Your task to perform on an android device: delete location history Image 0: 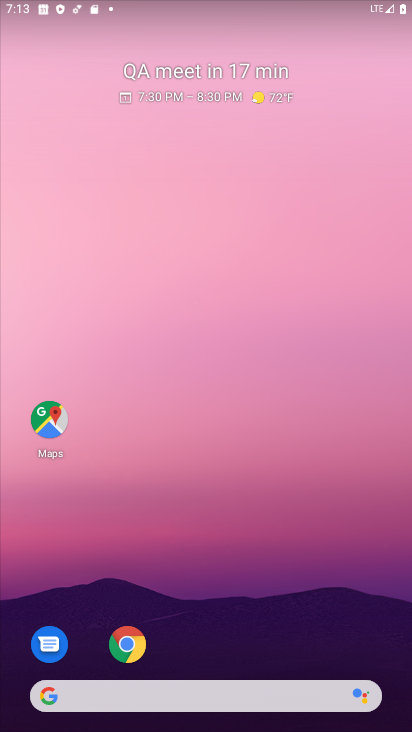
Step 0: drag from (243, 710) to (232, 166)
Your task to perform on an android device: delete location history Image 1: 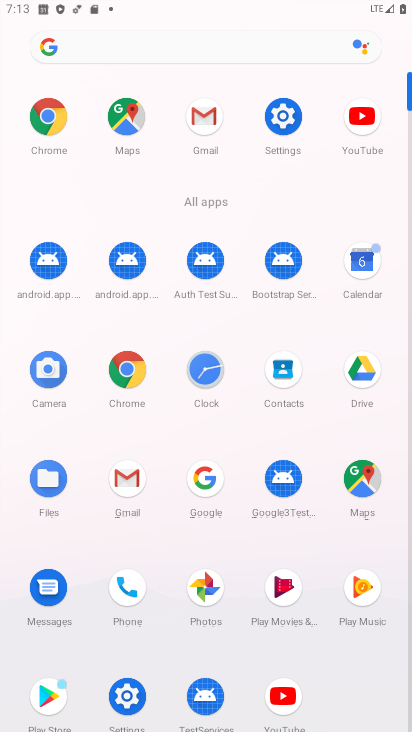
Step 1: click (277, 112)
Your task to perform on an android device: delete location history Image 2: 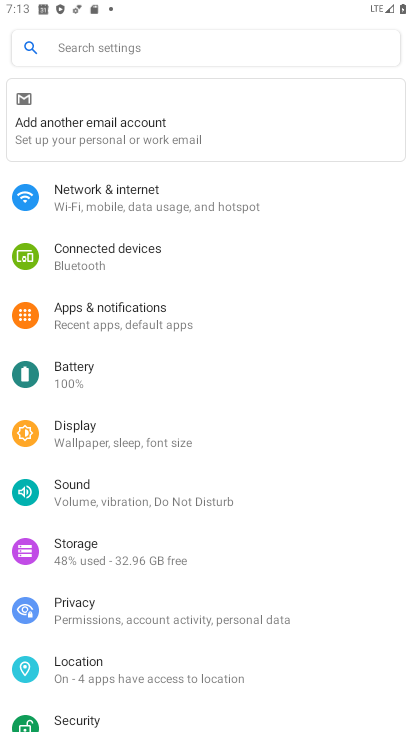
Step 2: click (125, 53)
Your task to perform on an android device: delete location history Image 3: 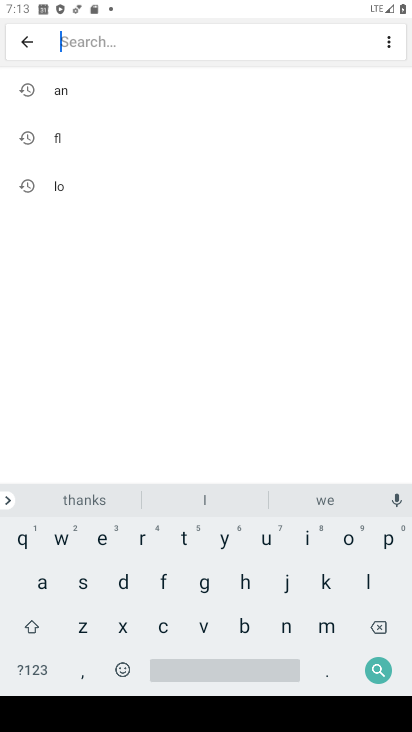
Step 3: click (379, 578)
Your task to perform on an android device: delete location history Image 4: 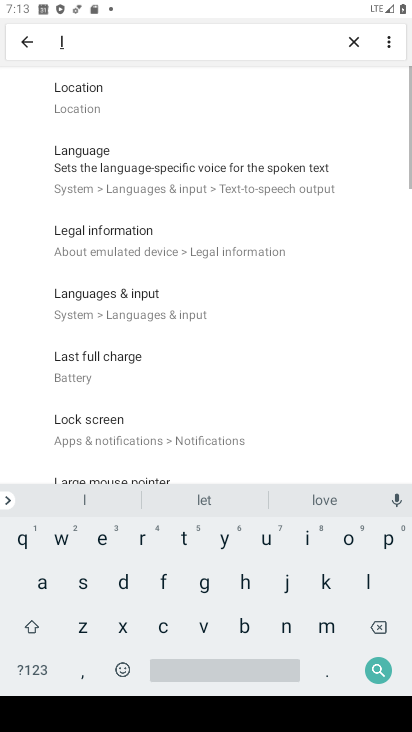
Step 4: click (347, 540)
Your task to perform on an android device: delete location history Image 5: 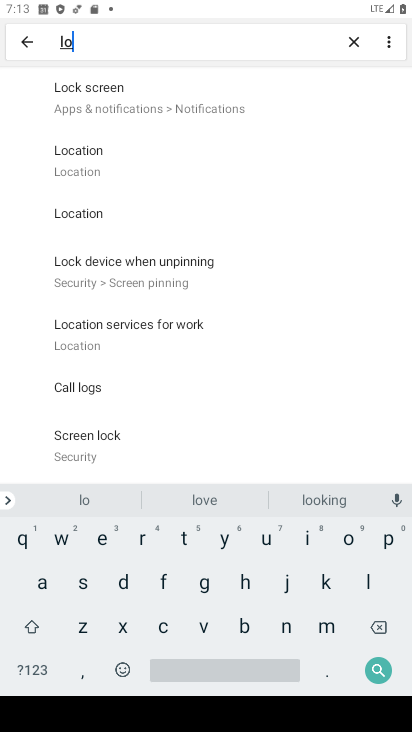
Step 5: click (84, 161)
Your task to perform on an android device: delete location history Image 6: 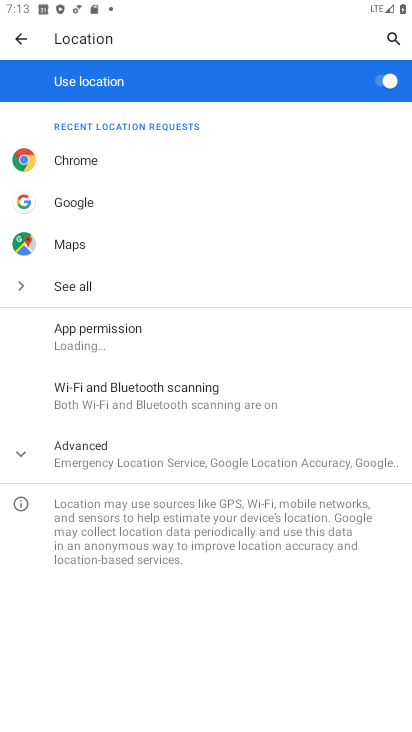
Step 6: click (85, 449)
Your task to perform on an android device: delete location history Image 7: 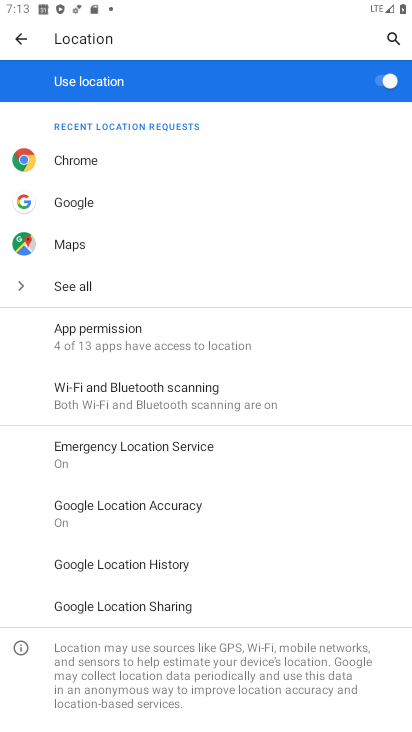
Step 7: click (126, 558)
Your task to perform on an android device: delete location history Image 8: 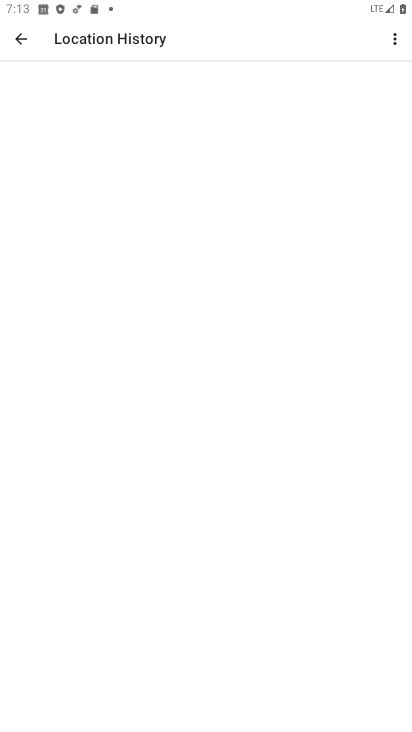
Step 8: task complete